Your task to perform on an android device: Add razer kraken to the cart on bestbuy Image 0: 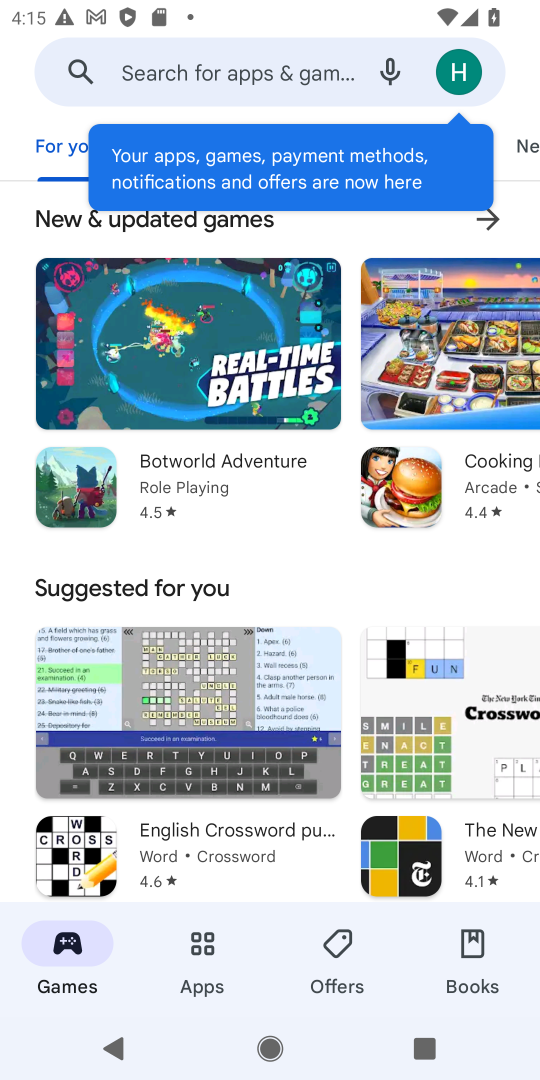
Step 0: press home button
Your task to perform on an android device: Add razer kraken to the cart on bestbuy Image 1: 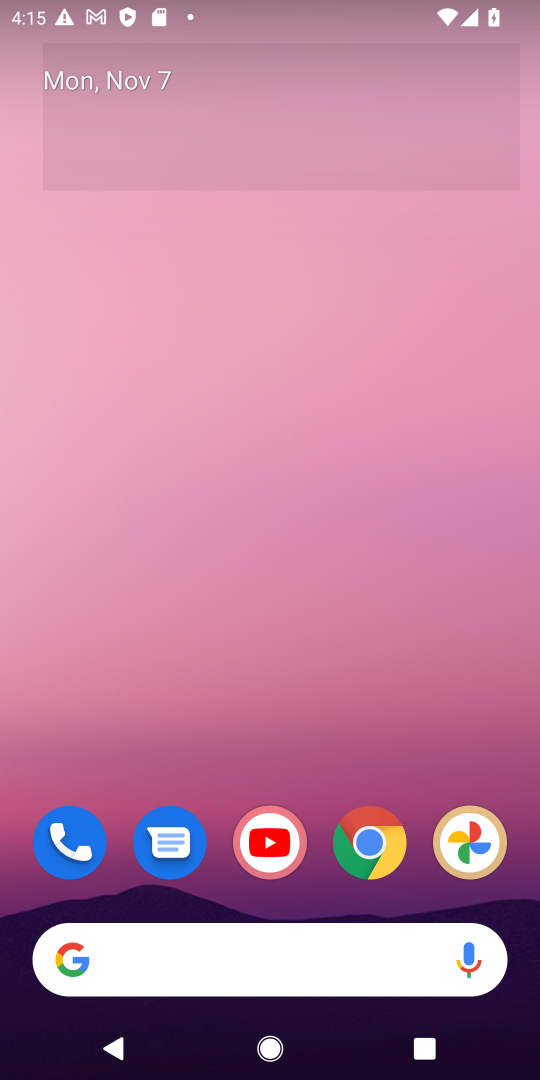
Step 1: drag from (257, 917) to (174, 18)
Your task to perform on an android device: Add razer kraken to the cart on bestbuy Image 2: 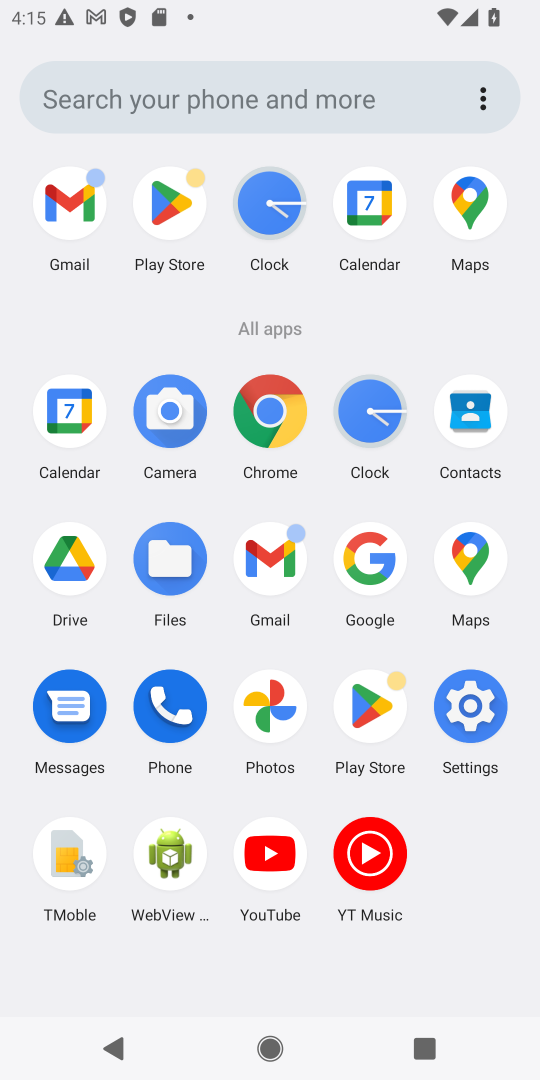
Step 2: click (283, 408)
Your task to perform on an android device: Add razer kraken to the cart on bestbuy Image 3: 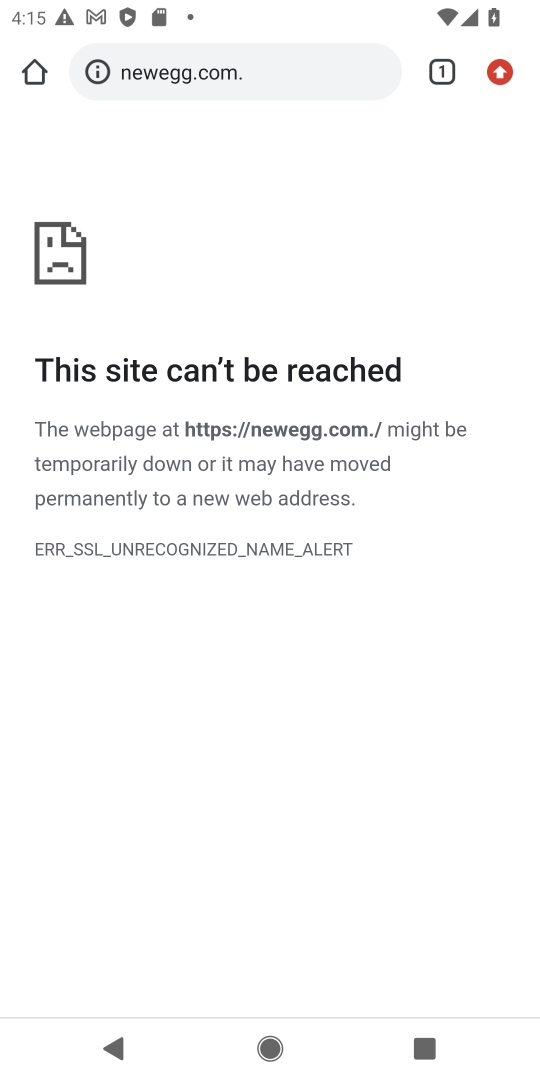
Step 3: click (288, 79)
Your task to perform on an android device: Add razer kraken to the cart on bestbuy Image 4: 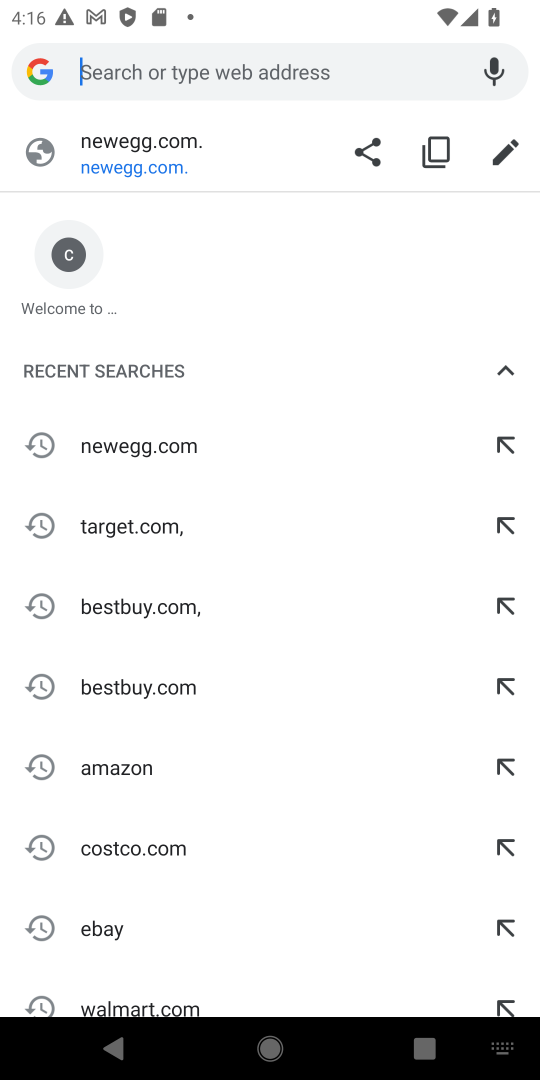
Step 4: type "bestbuy"
Your task to perform on an android device: Add razer kraken to the cart on bestbuy Image 5: 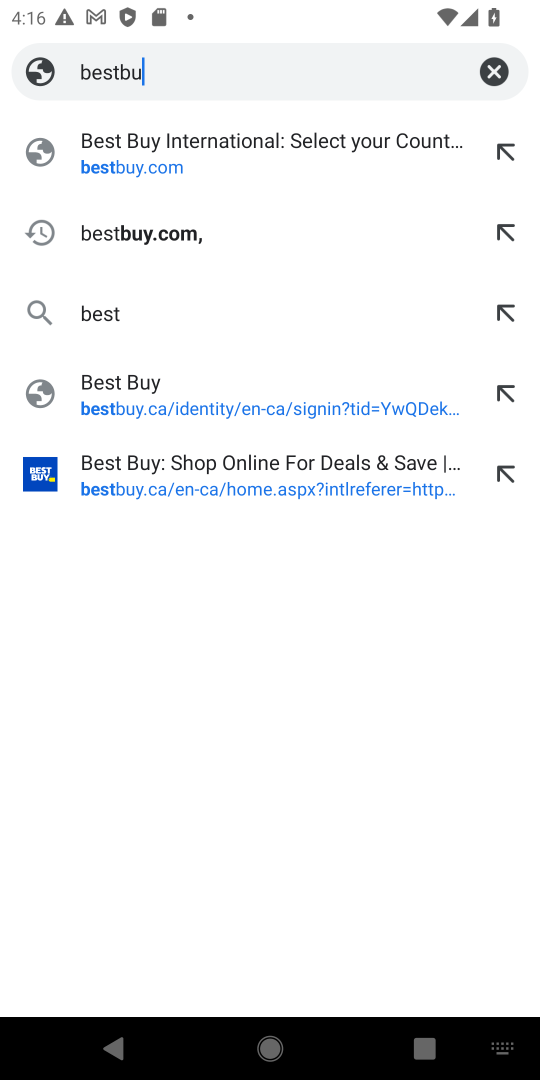
Step 5: press enter
Your task to perform on an android device: Add razer kraken to the cart on bestbuy Image 6: 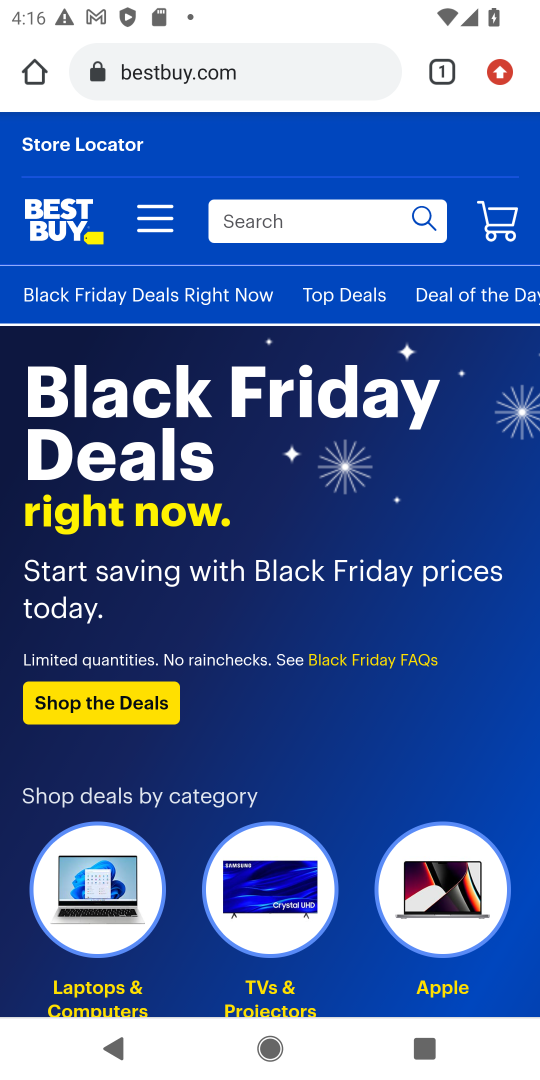
Step 6: click (315, 204)
Your task to perform on an android device: Add razer kraken to the cart on bestbuy Image 7: 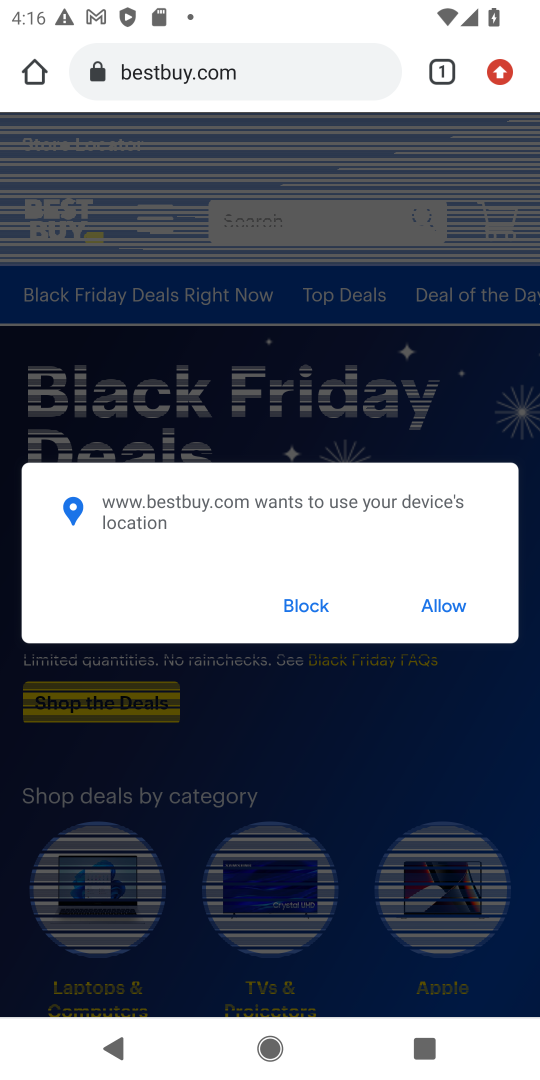
Step 7: click (425, 606)
Your task to perform on an android device: Add razer kraken to the cart on bestbuy Image 8: 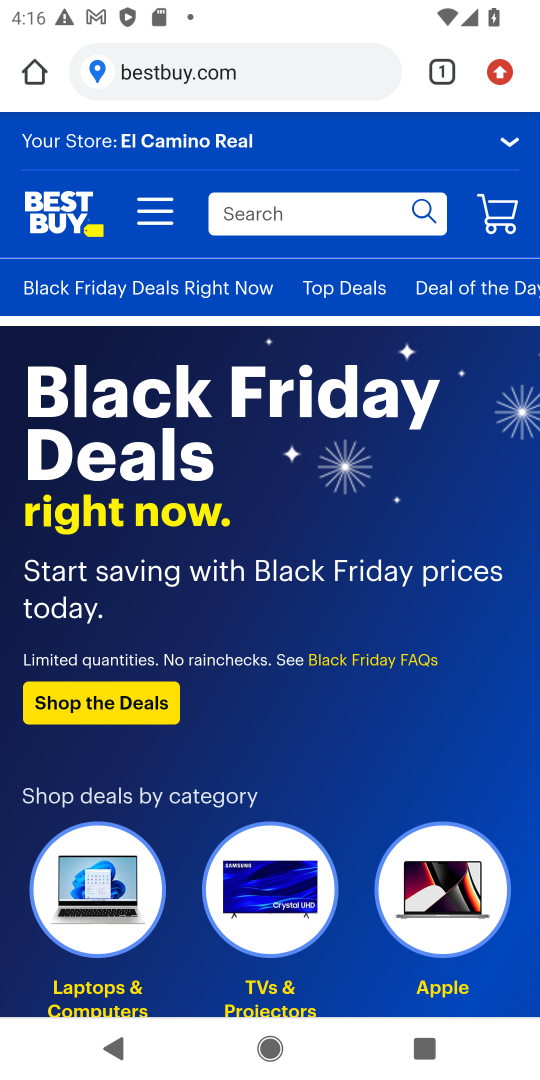
Step 8: click (271, 217)
Your task to perform on an android device: Add razer kraken to the cart on bestbuy Image 9: 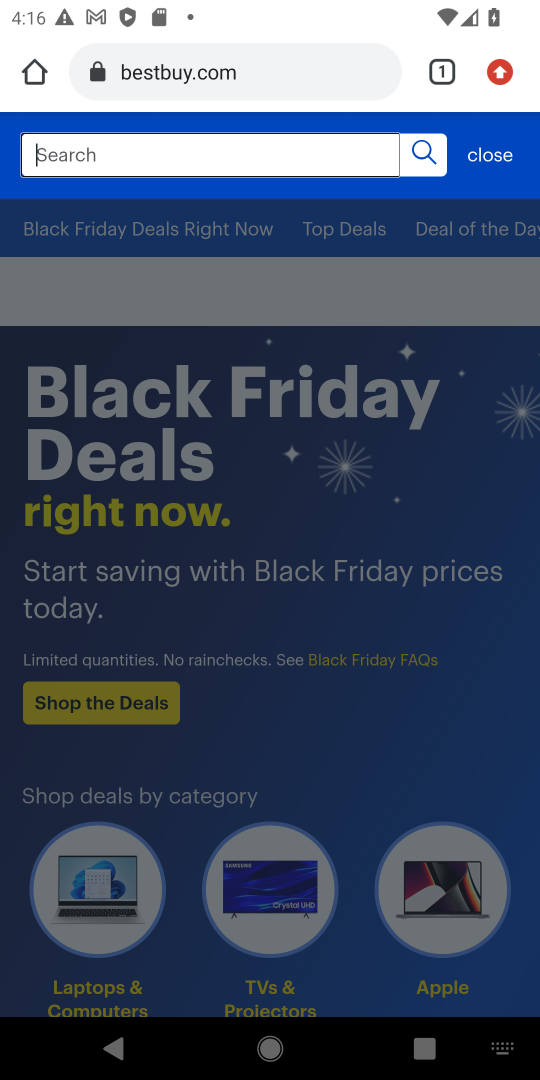
Step 9: type "razer kraken"
Your task to perform on an android device: Add razer kraken to the cart on bestbuy Image 10: 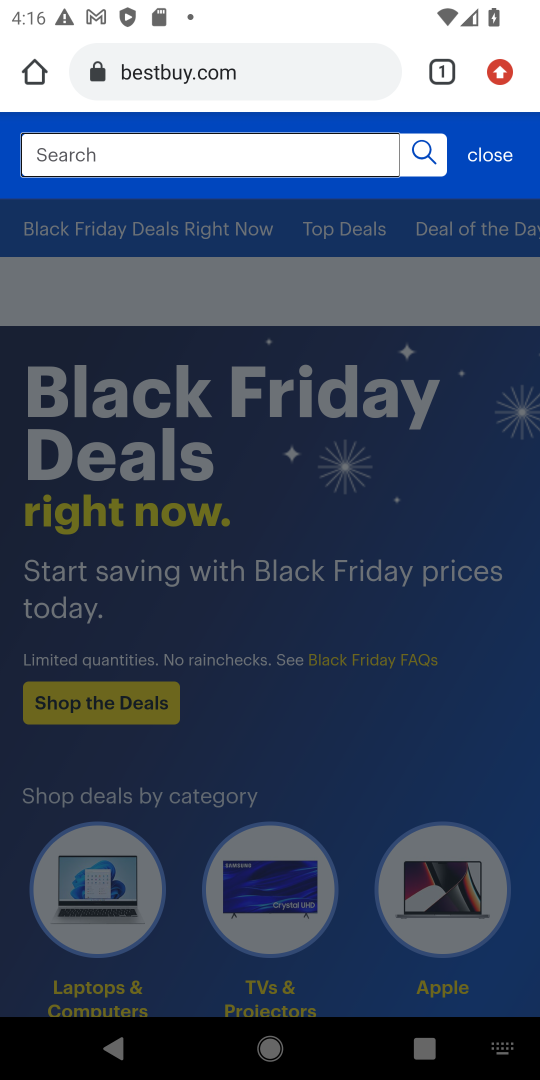
Step 10: press enter
Your task to perform on an android device: Add razer kraken to the cart on bestbuy Image 11: 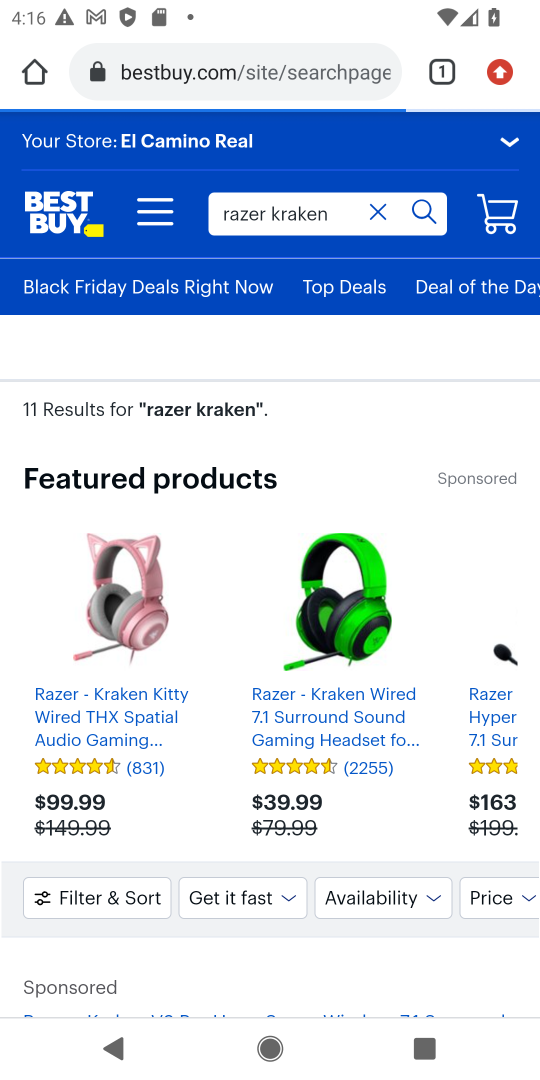
Step 11: drag from (291, 696) to (319, 336)
Your task to perform on an android device: Add razer kraken to the cart on bestbuy Image 12: 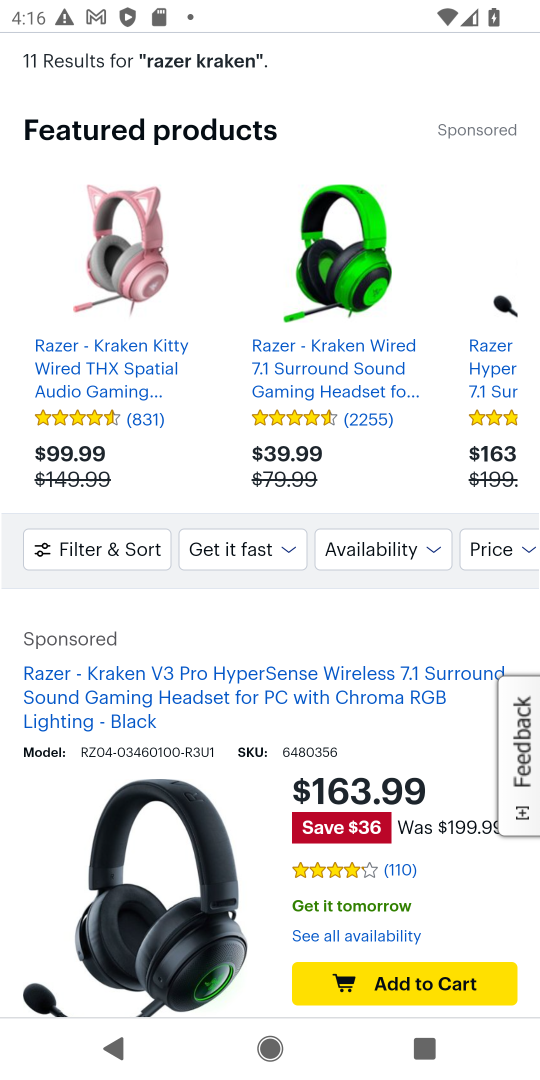
Step 12: drag from (277, 754) to (329, 351)
Your task to perform on an android device: Add razer kraken to the cart on bestbuy Image 13: 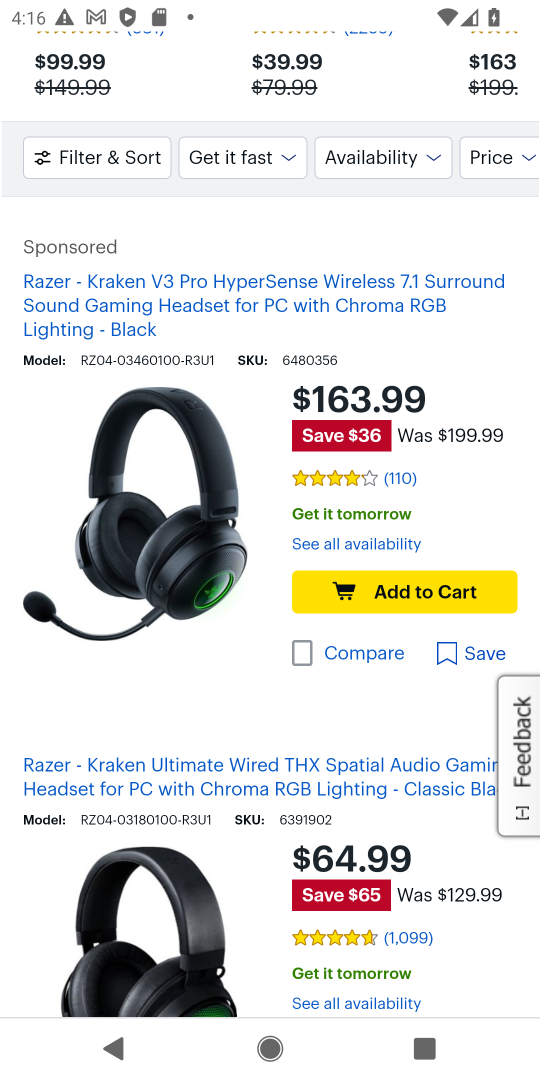
Step 13: click (407, 597)
Your task to perform on an android device: Add razer kraken to the cart on bestbuy Image 14: 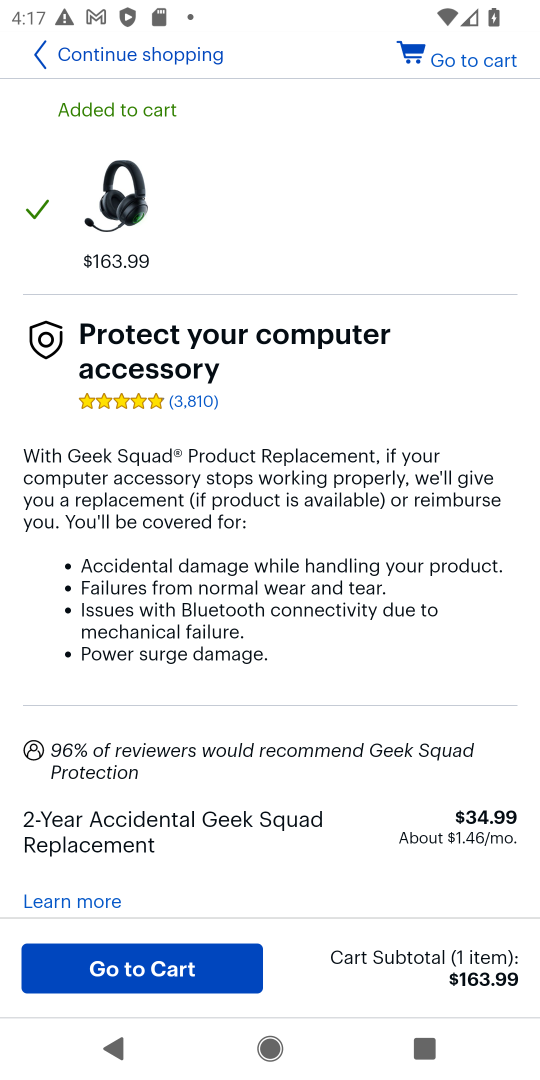
Step 14: click (150, 965)
Your task to perform on an android device: Add razer kraken to the cart on bestbuy Image 15: 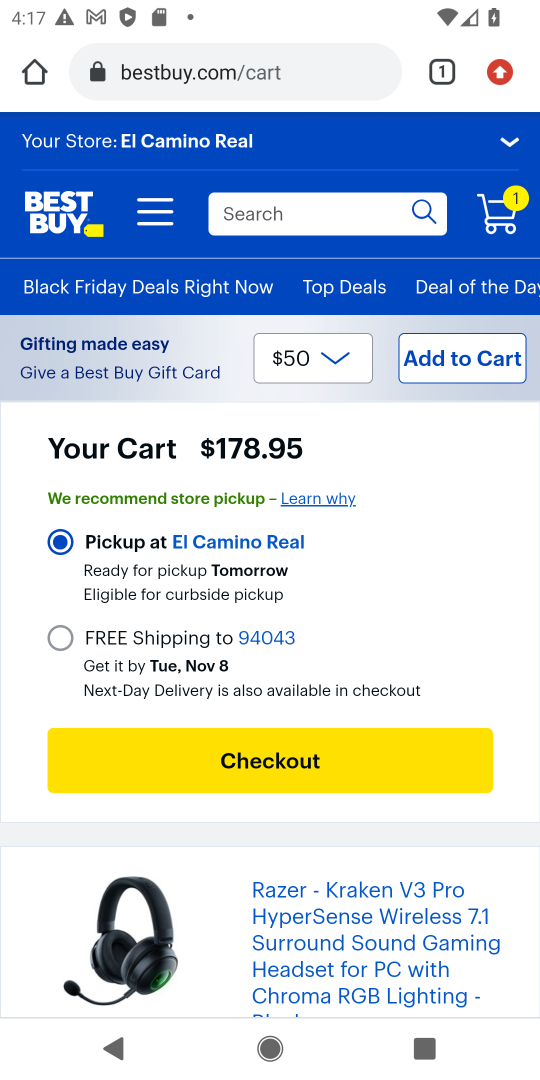
Step 15: click (284, 745)
Your task to perform on an android device: Add razer kraken to the cart on bestbuy Image 16: 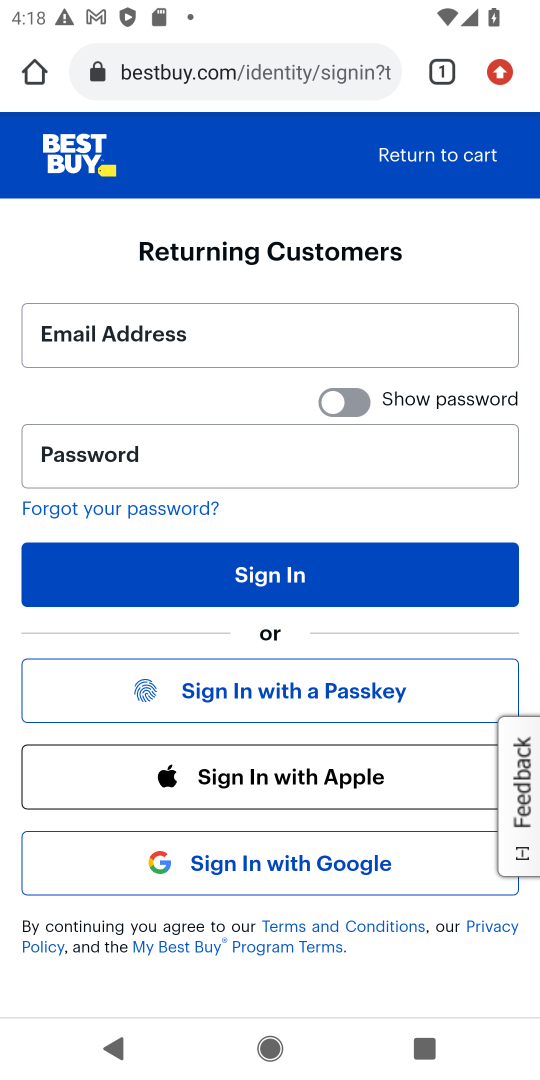
Step 16: task complete